Your task to perform on an android device: check out phone information Image 0: 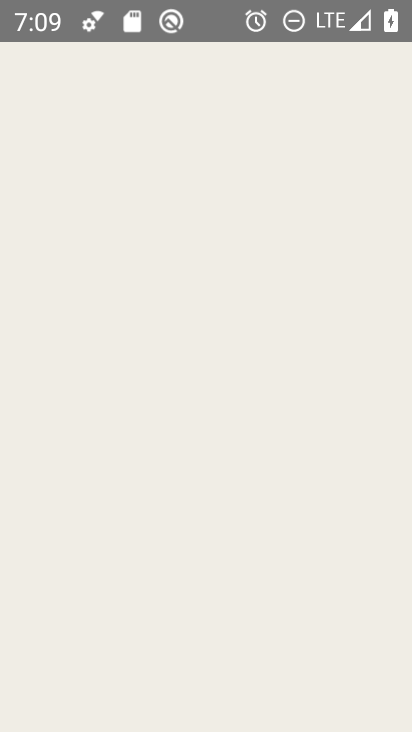
Step 0: press home button
Your task to perform on an android device: check out phone information Image 1: 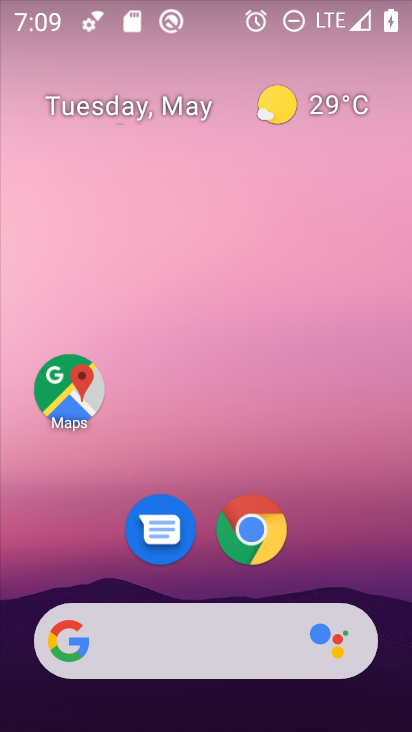
Step 1: drag from (383, 637) to (237, 1)
Your task to perform on an android device: check out phone information Image 2: 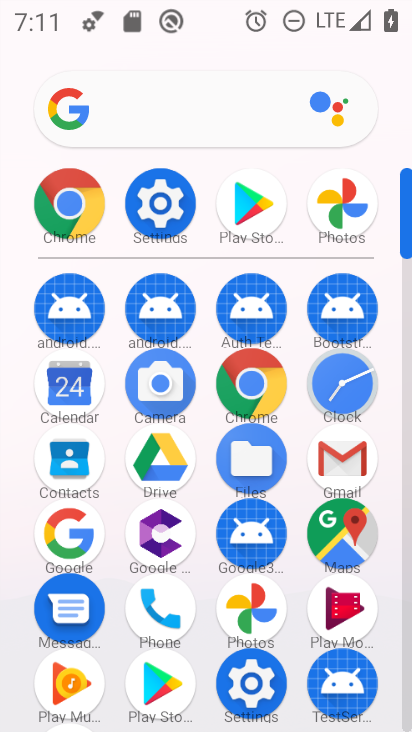
Step 2: click (252, 672)
Your task to perform on an android device: check out phone information Image 3: 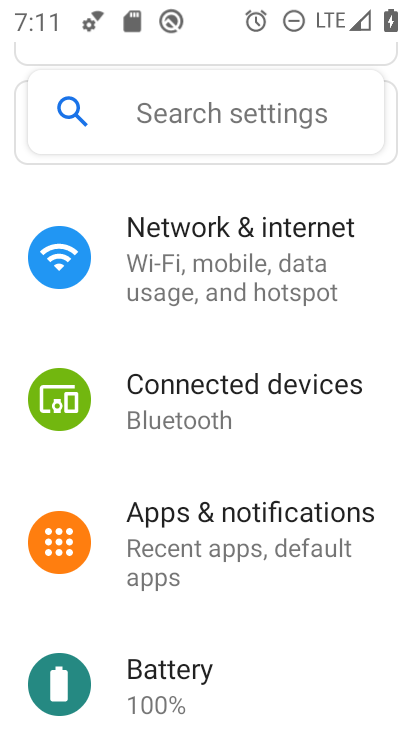
Step 3: task complete